Your task to perform on an android device: toggle improve location accuracy Image 0: 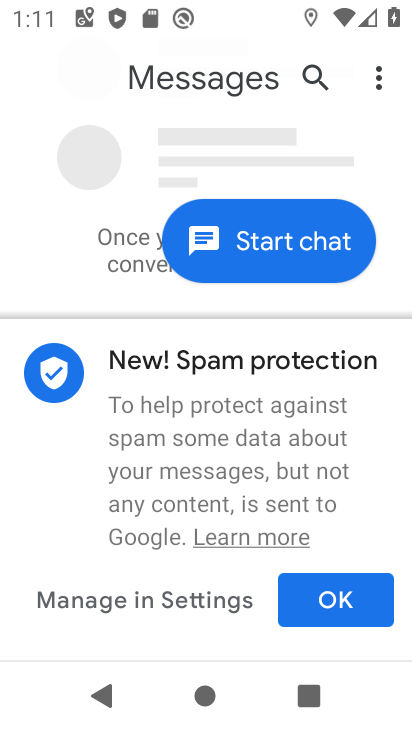
Step 0: press home button
Your task to perform on an android device: toggle improve location accuracy Image 1: 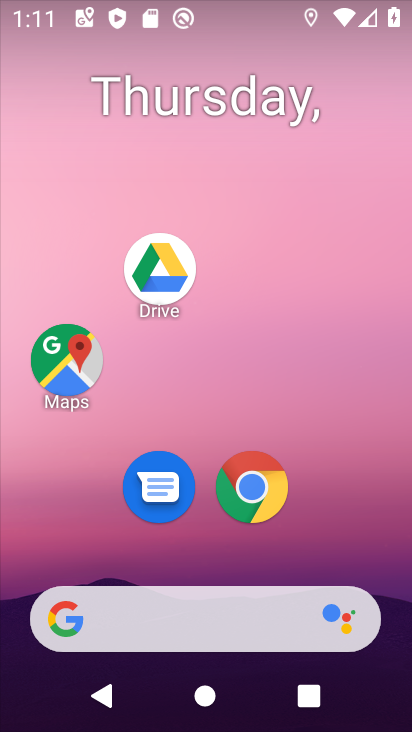
Step 1: drag from (223, 573) to (172, 17)
Your task to perform on an android device: toggle improve location accuracy Image 2: 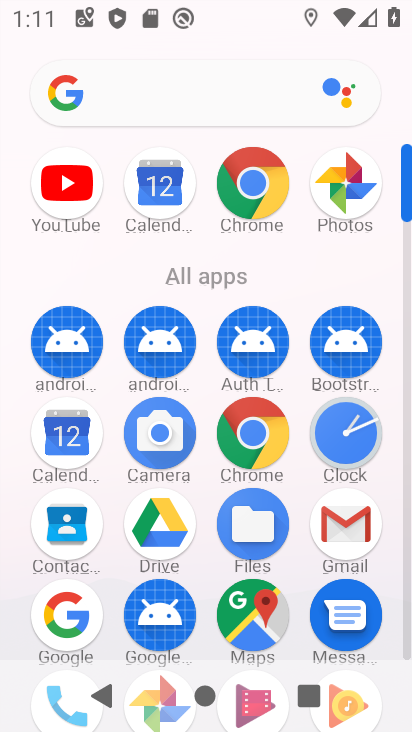
Step 2: drag from (209, 580) to (190, 223)
Your task to perform on an android device: toggle improve location accuracy Image 3: 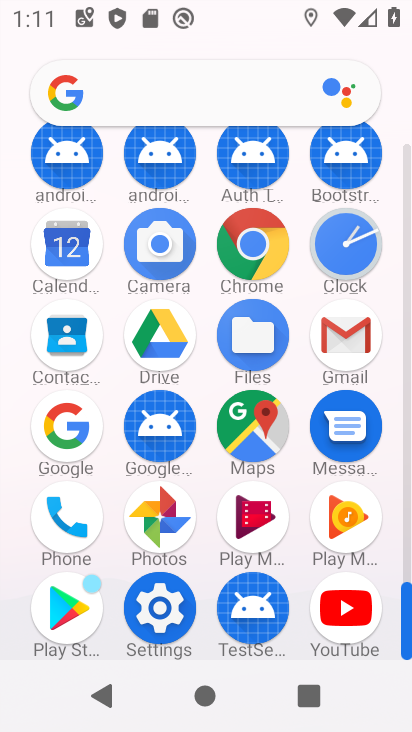
Step 3: click (147, 622)
Your task to perform on an android device: toggle improve location accuracy Image 4: 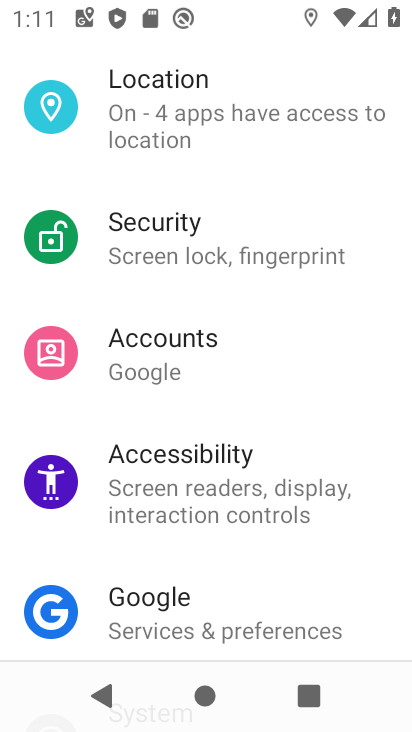
Step 4: drag from (209, 634) to (202, 592)
Your task to perform on an android device: toggle improve location accuracy Image 5: 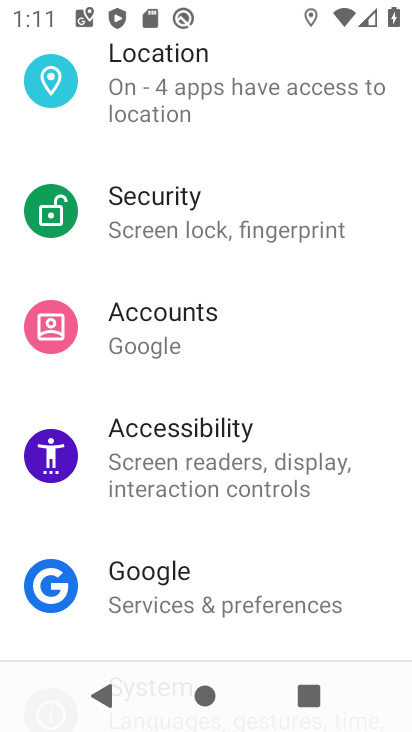
Step 5: click (177, 107)
Your task to perform on an android device: toggle improve location accuracy Image 6: 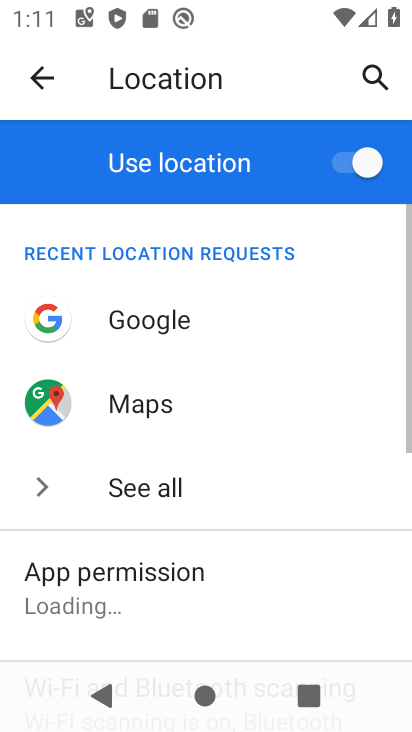
Step 6: drag from (258, 602) to (211, 133)
Your task to perform on an android device: toggle improve location accuracy Image 7: 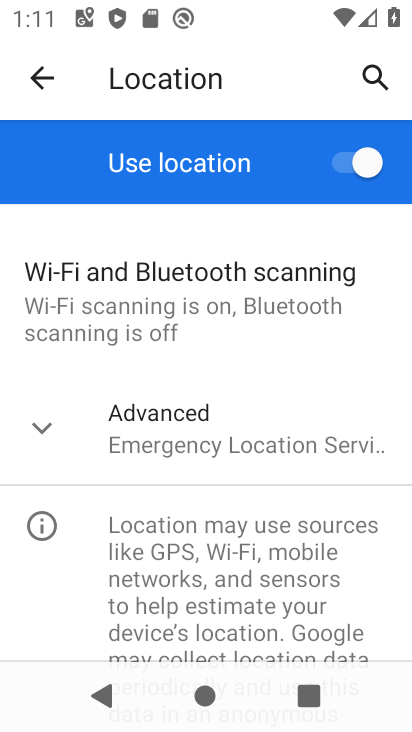
Step 7: click (184, 457)
Your task to perform on an android device: toggle improve location accuracy Image 8: 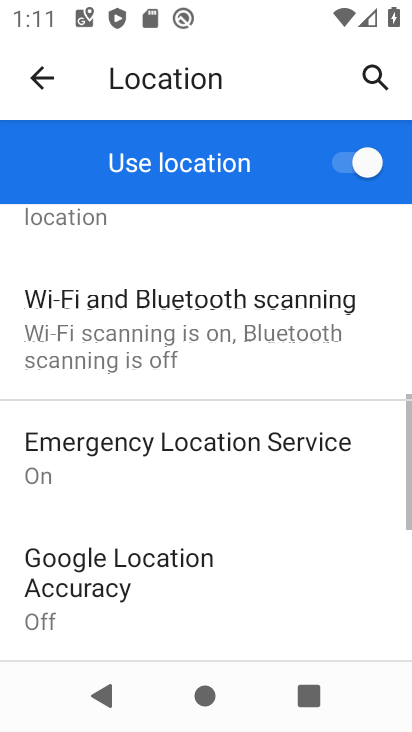
Step 8: click (206, 572)
Your task to perform on an android device: toggle improve location accuracy Image 9: 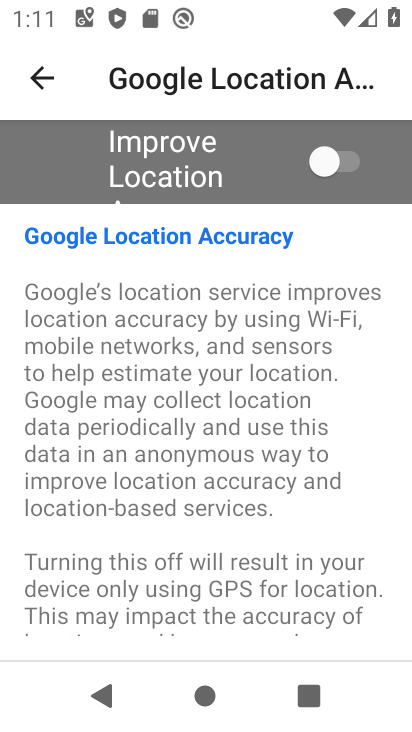
Step 9: click (345, 159)
Your task to perform on an android device: toggle improve location accuracy Image 10: 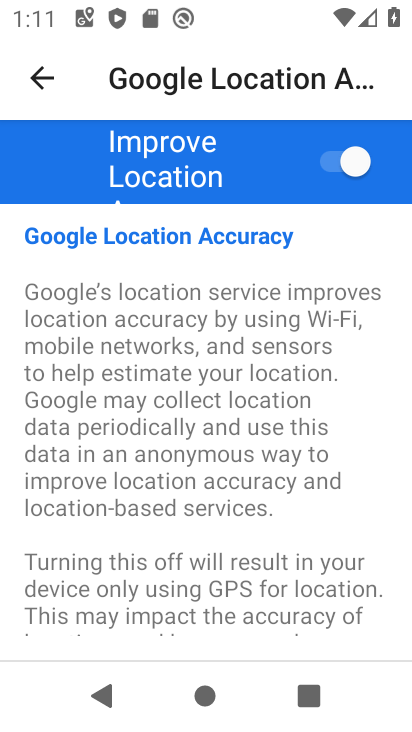
Step 10: task complete